Your task to perform on an android device: change keyboard looks Image 0: 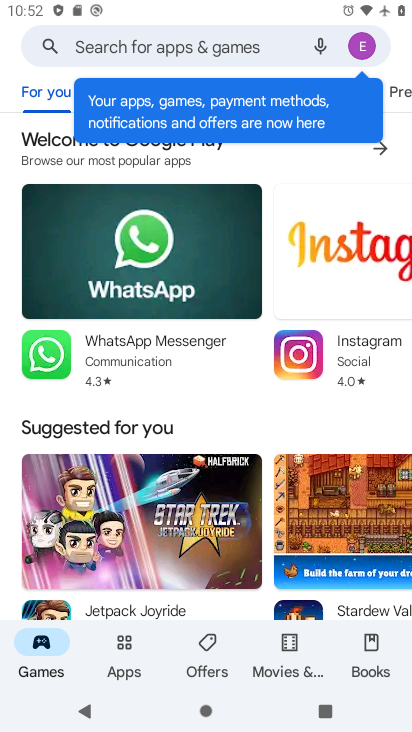
Step 0: press home button
Your task to perform on an android device: change keyboard looks Image 1: 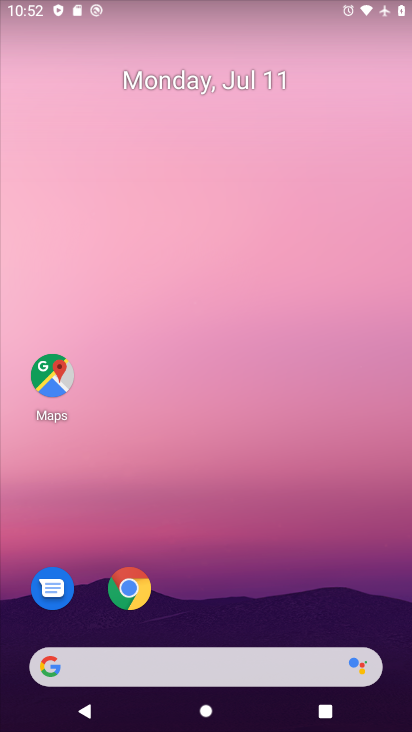
Step 1: drag from (188, 670) to (345, 171)
Your task to perform on an android device: change keyboard looks Image 2: 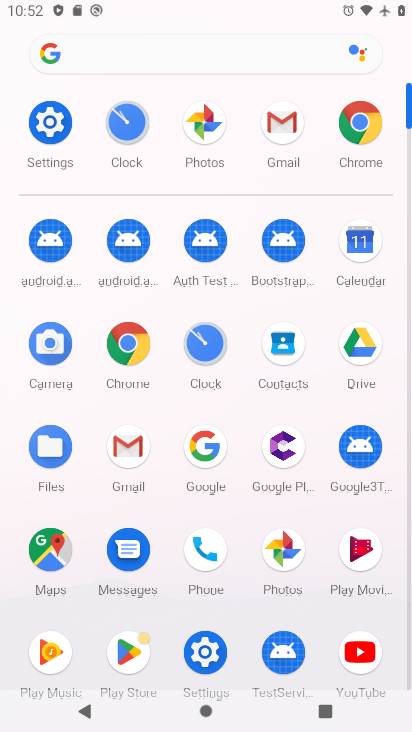
Step 2: click (47, 118)
Your task to perform on an android device: change keyboard looks Image 3: 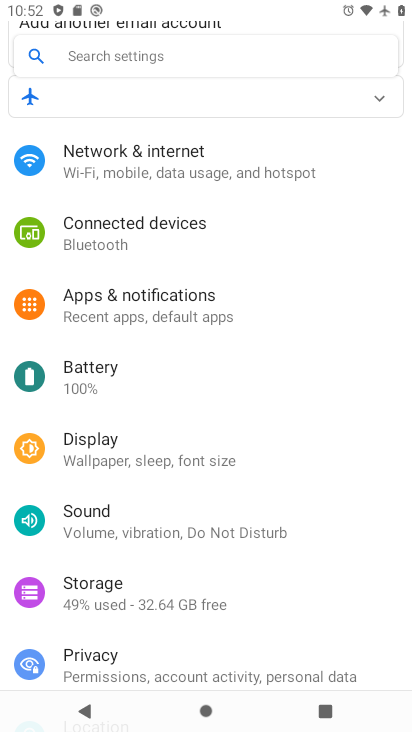
Step 3: drag from (167, 639) to (381, 47)
Your task to perform on an android device: change keyboard looks Image 4: 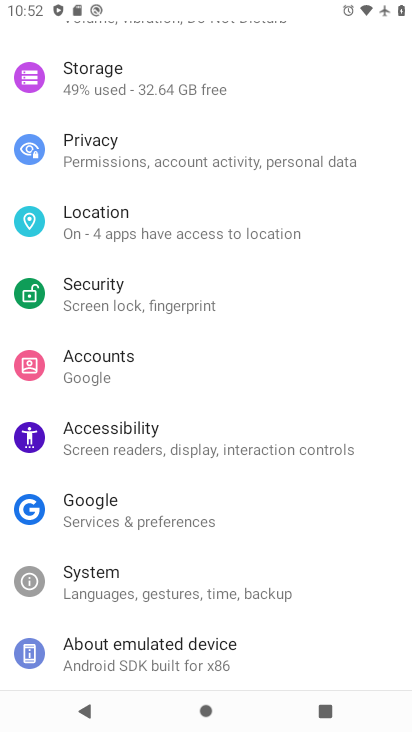
Step 4: click (162, 595)
Your task to perform on an android device: change keyboard looks Image 5: 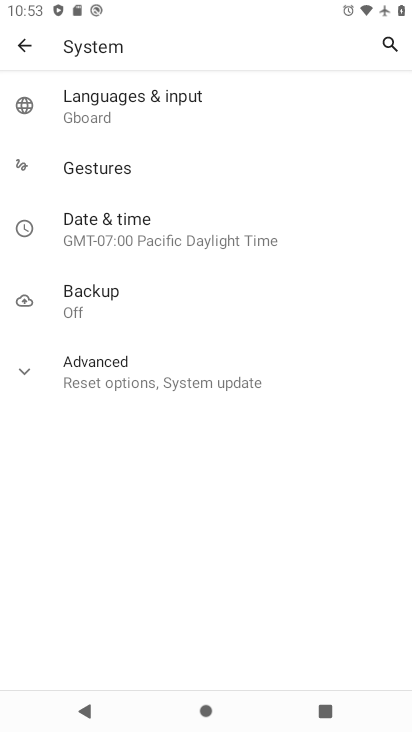
Step 5: click (171, 111)
Your task to perform on an android device: change keyboard looks Image 6: 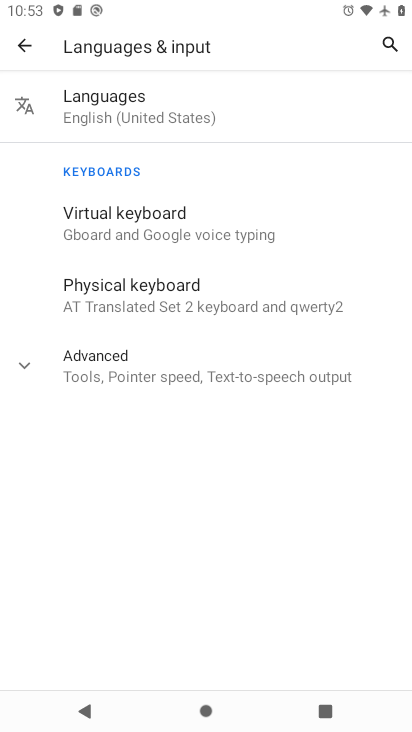
Step 6: click (120, 225)
Your task to perform on an android device: change keyboard looks Image 7: 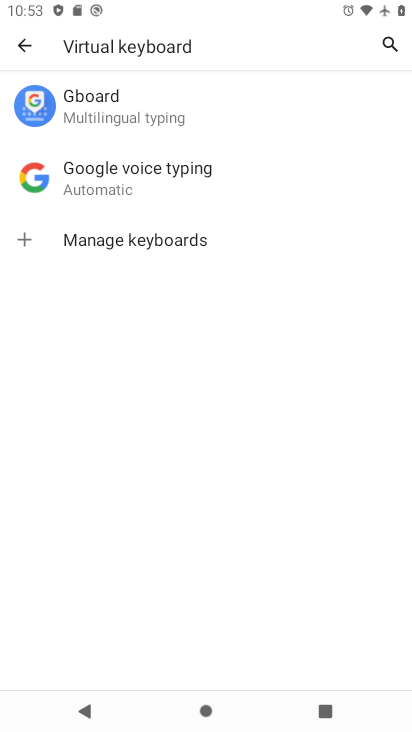
Step 7: click (155, 120)
Your task to perform on an android device: change keyboard looks Image 8: 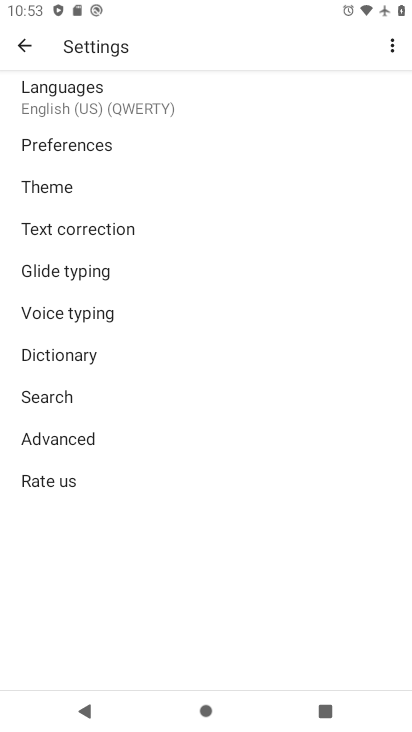
Step 8: click (59, 179)
Your task to perform on an android device: change keyboard looks Image 9: 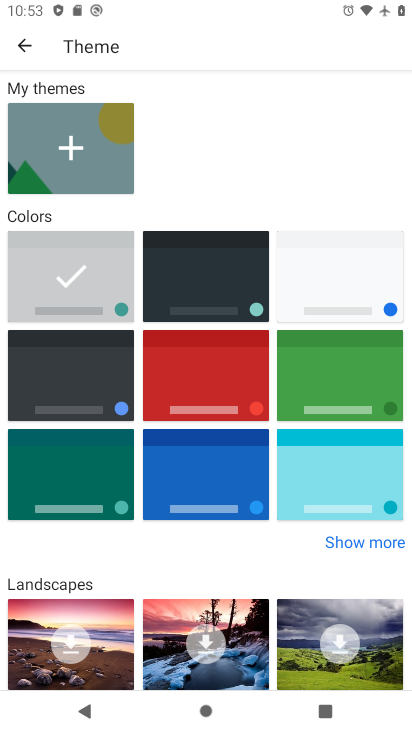
Step 9: click (332, 385)
Your task to perform on an android device: change keyboard looks Image 10: 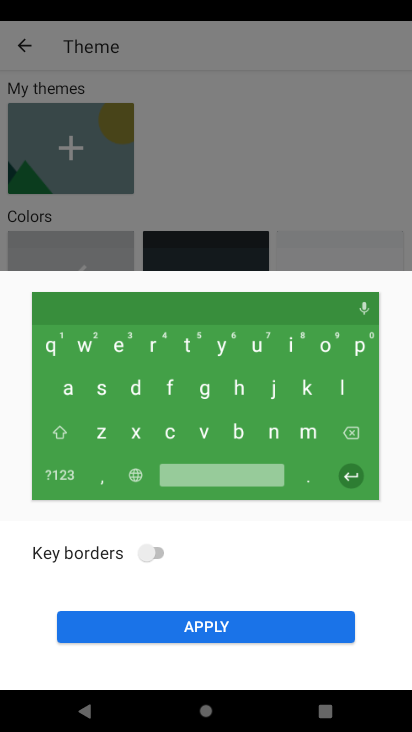
Step 10: click (210, 622)
Your task to perform on an android device: change keyboard looks Image 11: 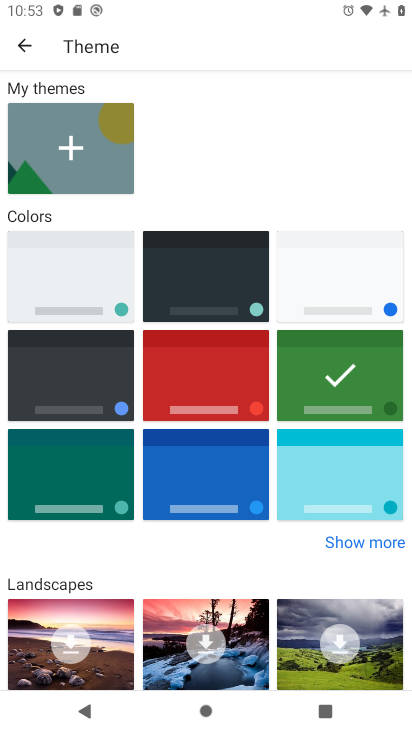
Step 11: task complete